Your task to perform on an android device: Open Amazon Image 0: 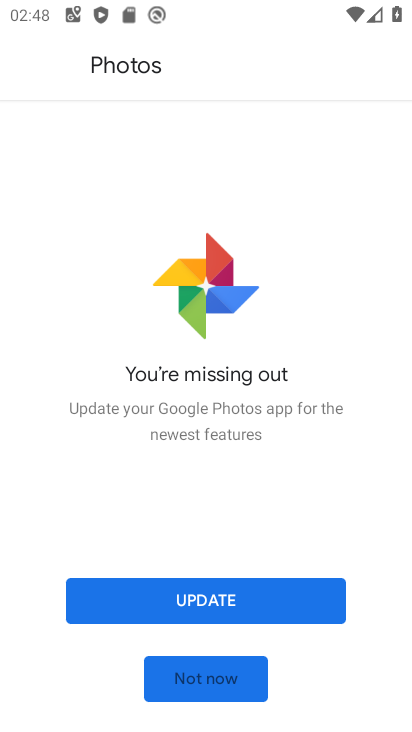
Step 0: press home button
Your task to perform on an android device: Open Amazon Image 1: 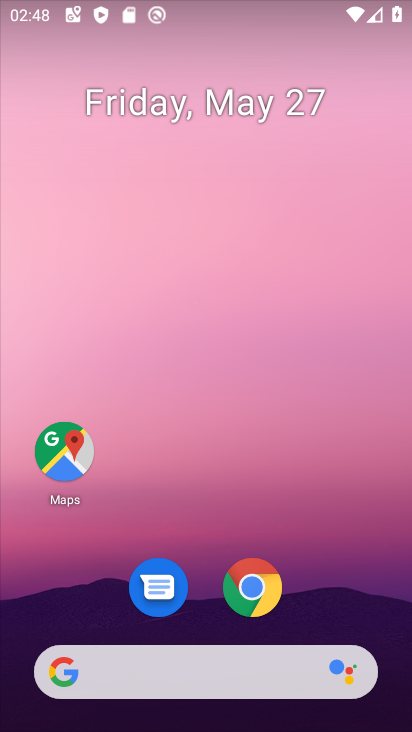
Step 1: click (54, 674)
Your task to perform on an android device: Open Amazon Image 2: 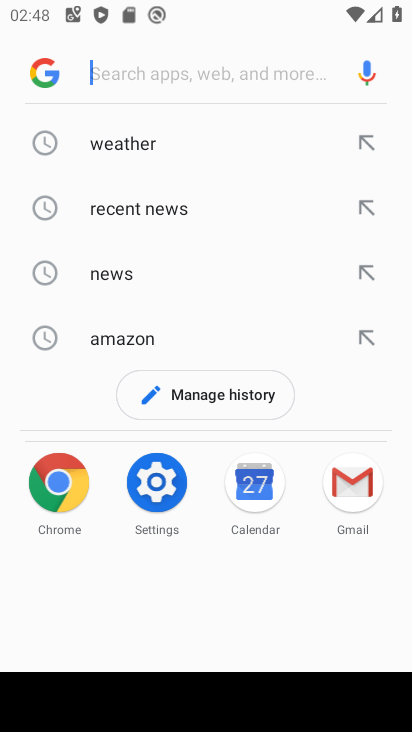
Step 2: click (119, 344)
Your task to perform on an android device: Open Amazon Image 3: 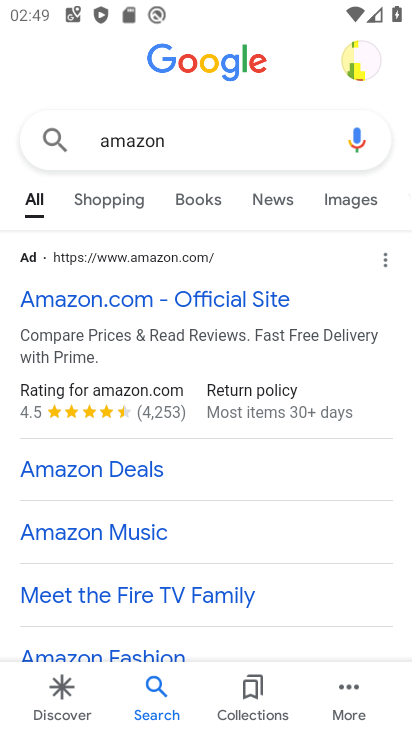
Step 3: click (136, 309)
Your task to perform on an android device: Open Amazon Image 4: 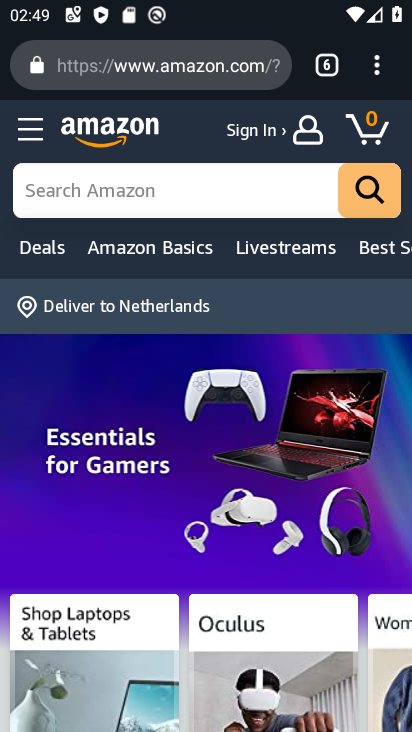
Step 4: task complete